Your task to perform on an android device: Go to network settings Image 0: 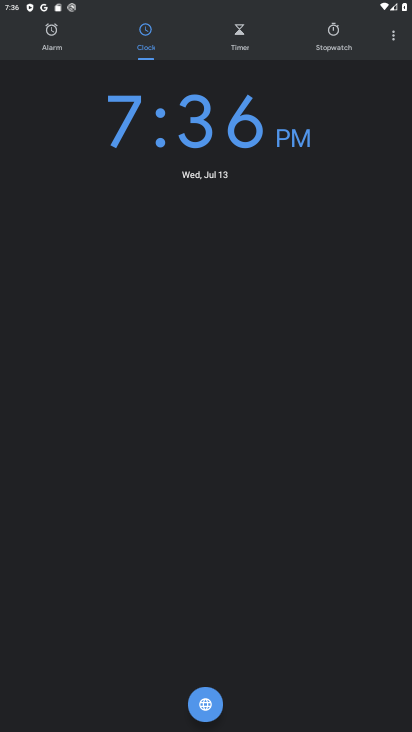
Step 0: press home button
Your task to perform on an android device: Go to network settings Image 1: 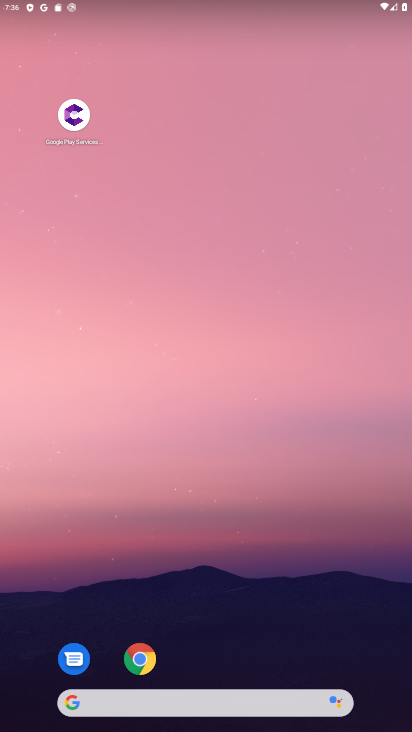
Step 1: drag from (282, 652) to (258, 117)
Your task to perform on an android device: Go to network settings Image 2: 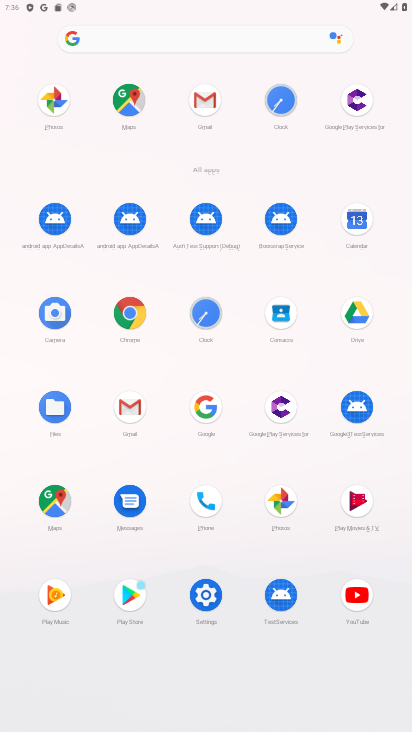
Step 2: click (200, 592)
Your task to perform on an android device: Go to network settings Image 3: 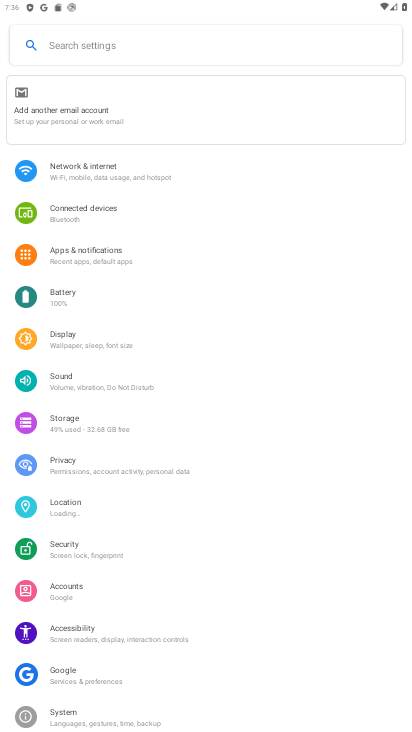
Step 3: click (116, 166)
Your task to perform on an android device: Go to network settings Image 4: 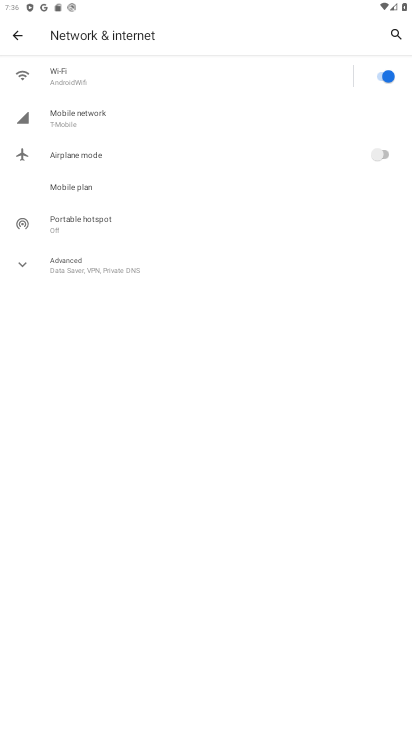
Step 4: task complete